Your task to perform on an android device: delete a single message in the gmail app Image 0: 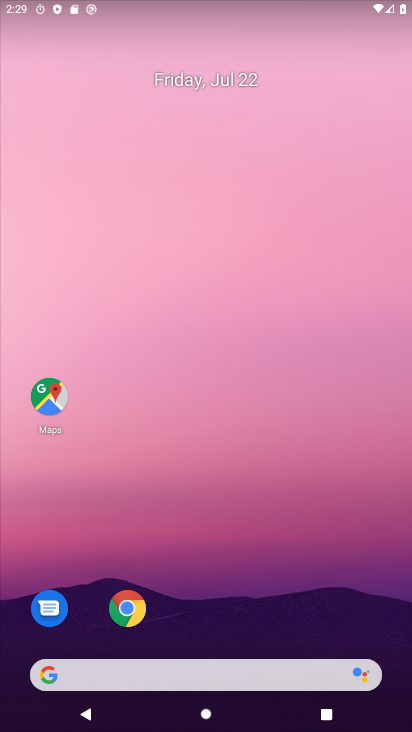
Step 0: drag from (190, 659) to (203, 114)
Your task to perform on an android device: delete a single message in the gmail app Image 1: 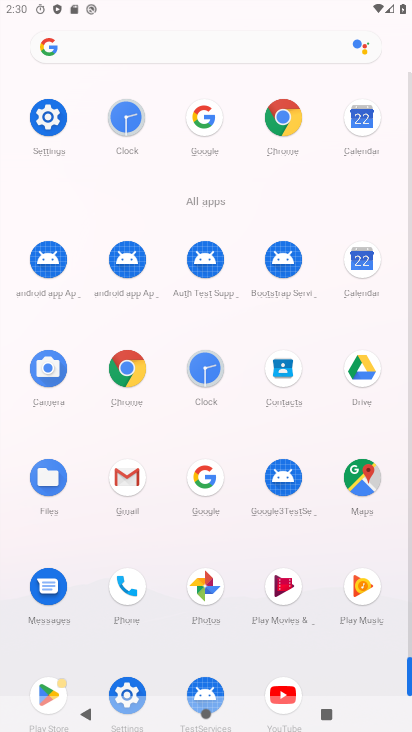
Step 1: click (133, 473)
Your task to perform on an android device: delete a single message in the gmail app Image 2: 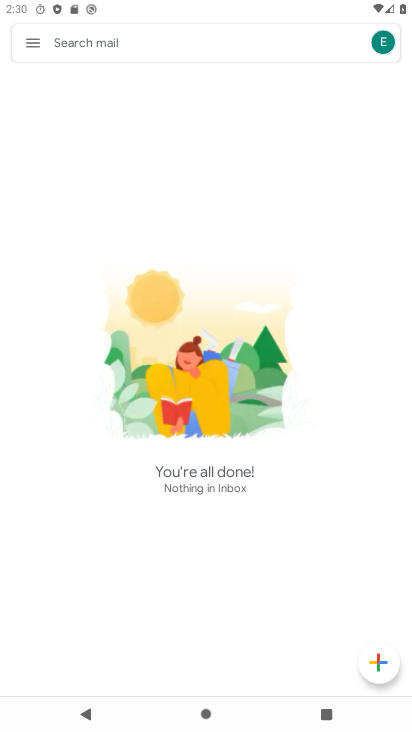
Step 2: click (36, 48)
Your task to perform on an android device: delete a single message in the gmail app Image 3: 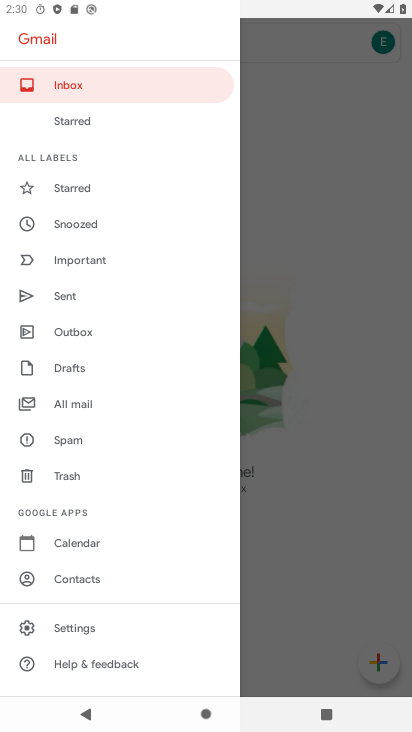
Step 3: task complete